Your task to perform on an android device: What is the recent news? Image 0: 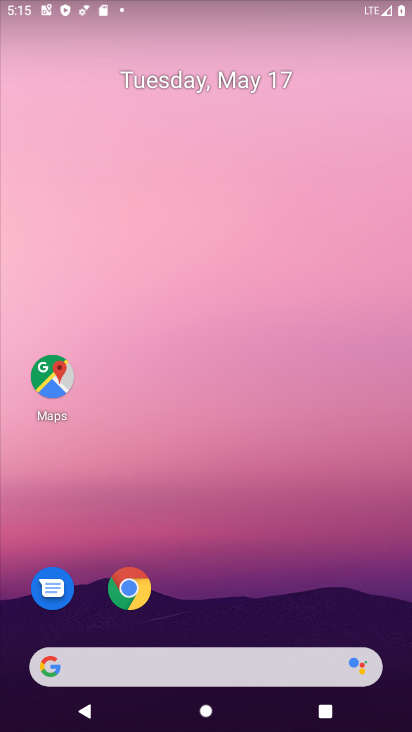
Step 0: drag from (264, 595) to (211, 159)
Your task to perform on an android device: What is the recent news? Image 1: 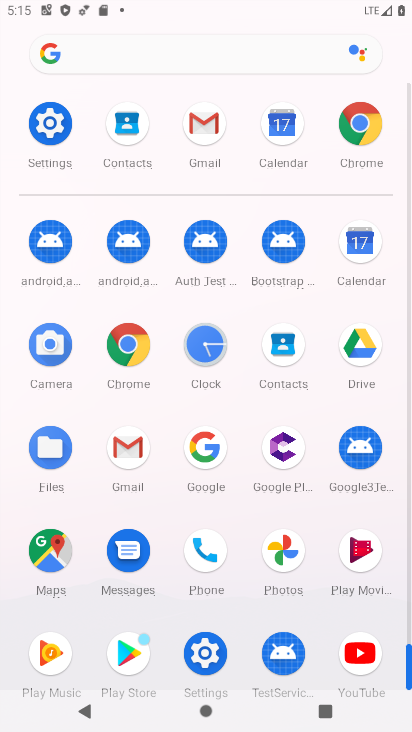
Step 1: click (202, 446)
Your task to perform on an android device: What is the recent news? Image 2: 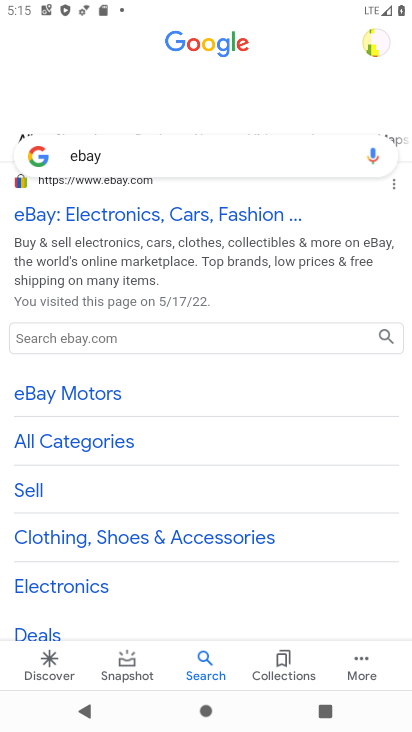
Step 2: click (238, 166)
Your task to perform on an android device: What is the recent news? Image 3: 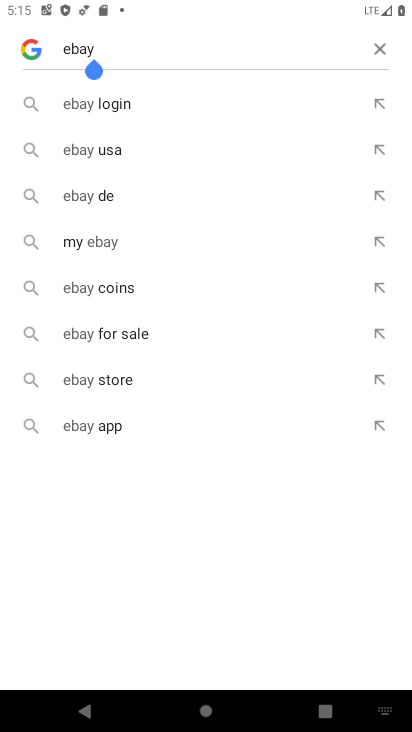
Step 3: click (386, 45)
Your task to perform on an android device: What is the recent news? Image 4: 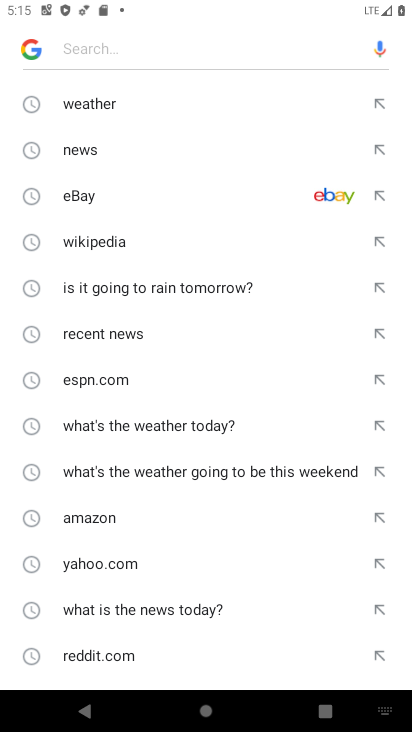
Step 4: type "recent news"
Your task to perform on an android device: What is the recent news? Image 5: 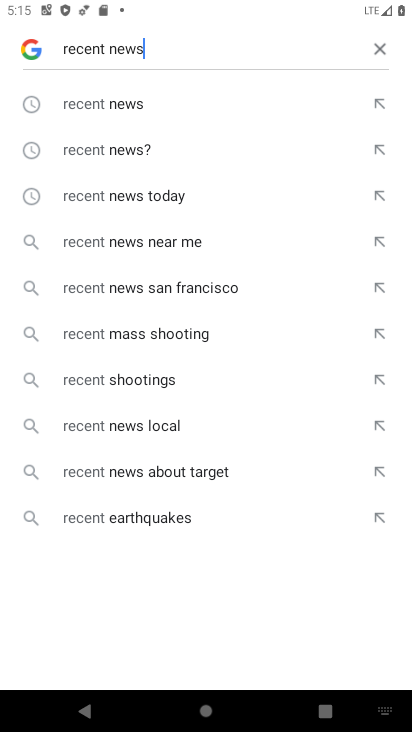
Step 5: type ""
Your task to perform on an android device: What is the recent news? Image 6: 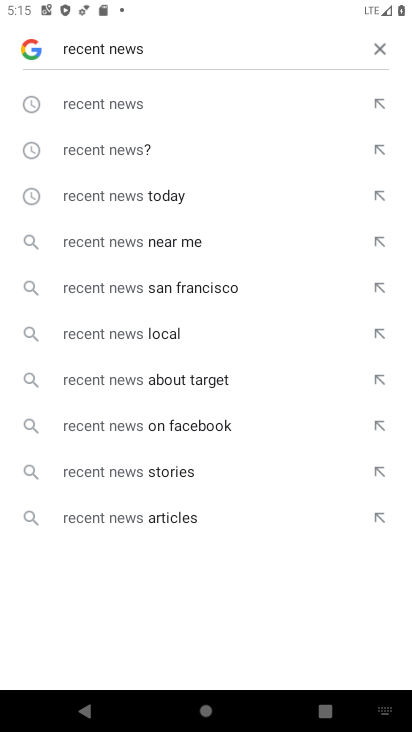
Step 6: click (117, 106)
Your task to perform on an android device: What is the recent news? Image 7: 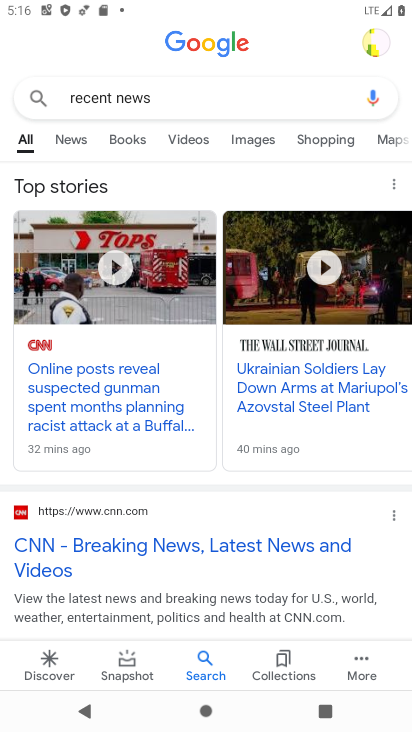
Step 7: task complete